Your task to perform on an android device: open wifi settings Image 0: 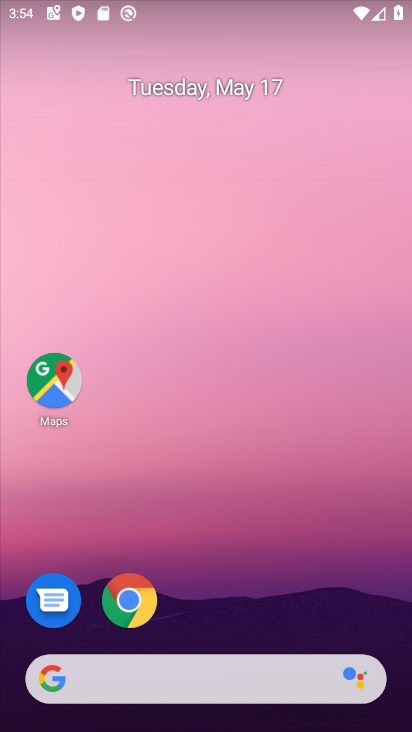
Step 0: drag from (215, 608) to (295, 17)
Your task to perform on an android device: open wifi settings Image 1: 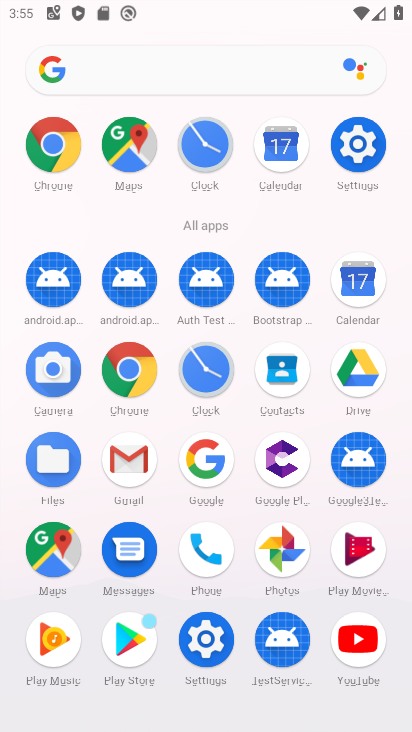
Step 1: click (368, 171)
Your task to perform on an android device: open wifi settings Image 2: 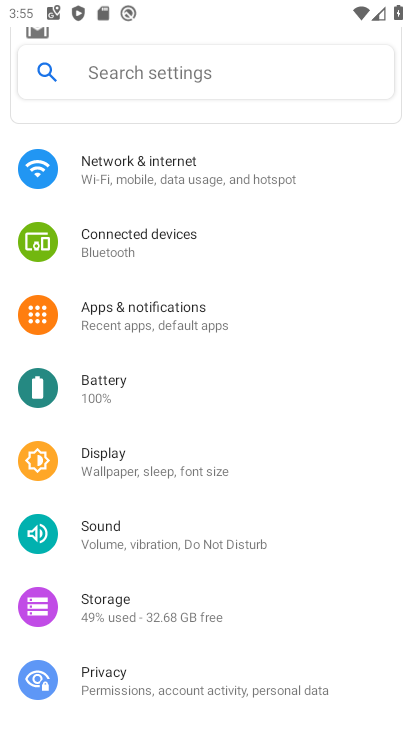
Step 2: drag from (149, 372) to (161, 295)
Your task to perform on an android device: open wifi settings Image 3: 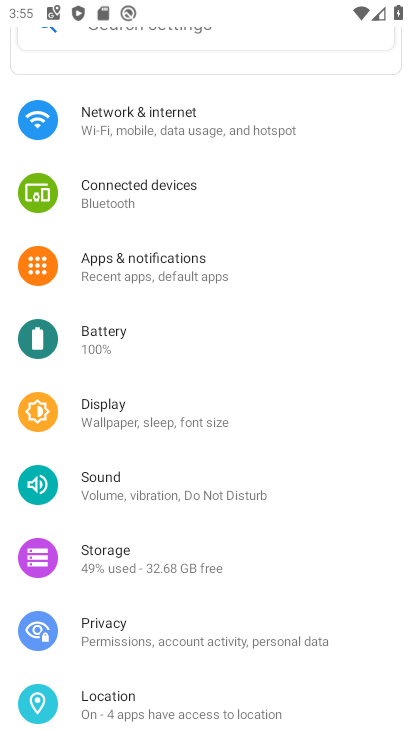
Step 3: click (167, 140)
Your task to perform on an android device: open wifi settings Image 4: 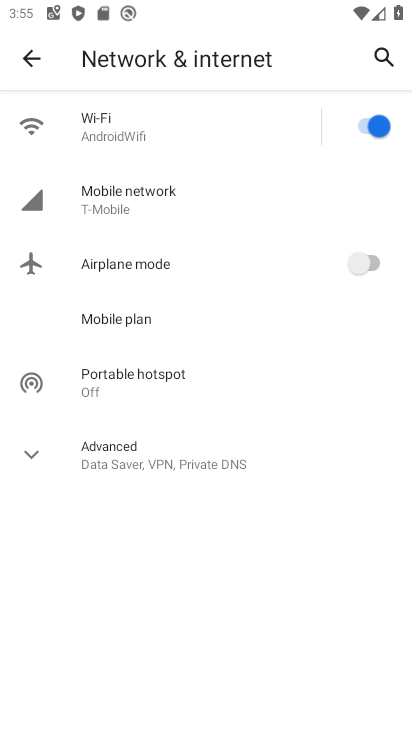
Step 4: click (140, 129)
Your task to perform on an android device: open wifi settings Image 5: 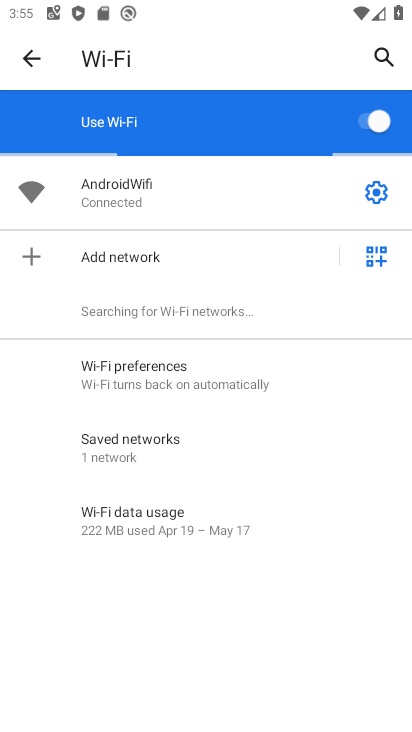
Step 5: task complete